Your task to perform on an android device: Show me recent news Image 0: 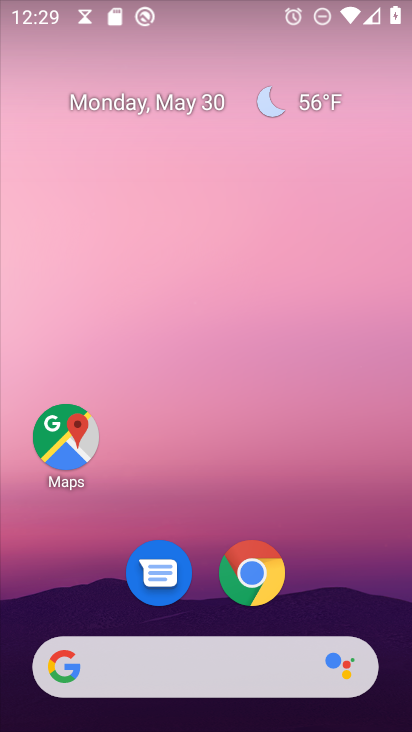
Step 0: drag from (203, 691) to (282, 11)
Your task to perform on an android device: Show me recent news Image 1: 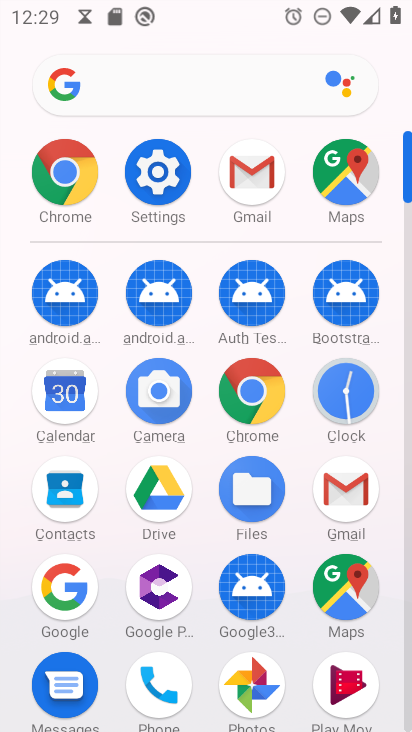
Step 1: click (253, 388)
Your task to perform on an android device: Show me recent news Image 2: 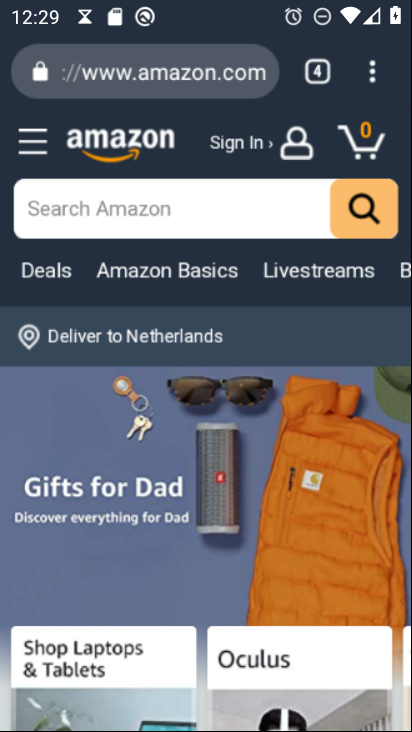
Step 2: click (189, 72)
Your task to perform on an android device: Show me recent news Image 3: 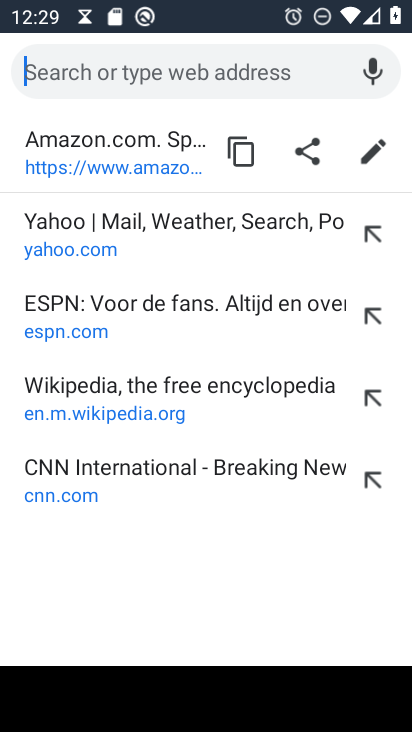
Step 3: type "recent news"
Your task to perform on an android device: Show me recent news Image 4: 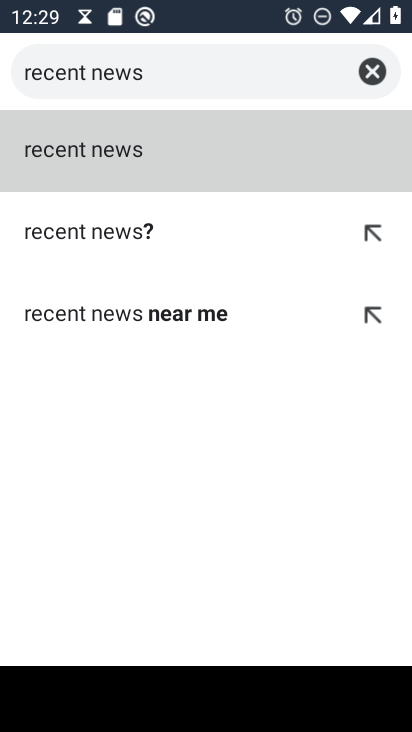
Step 4: click (28, 164)
Your task to perform on an android device: Show me recent news Image 5: 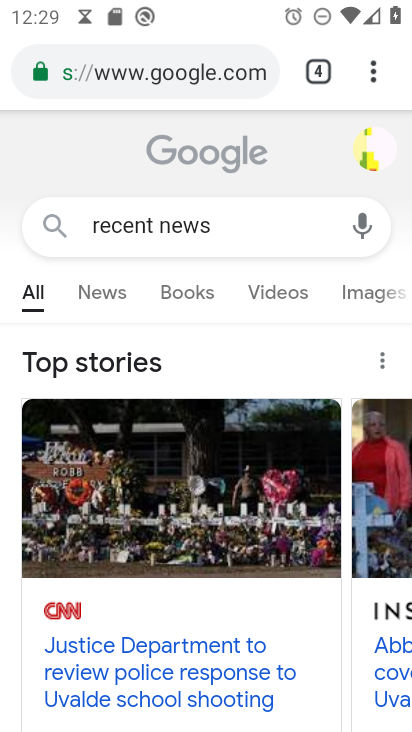
Step 5: task complete